Your task to perform on an android device: uninstall "Flipkart Online Shopping App" Image 0: 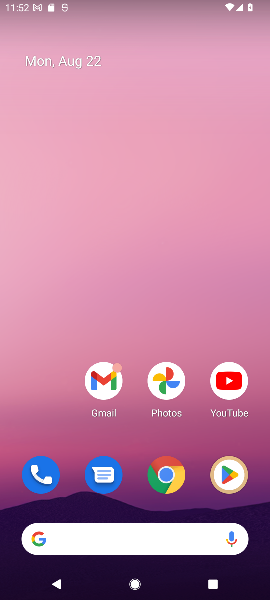
Step 0: press home button
Your task to perform on an android device: uninstall "Flipkart Online Shopping App" Image 1: 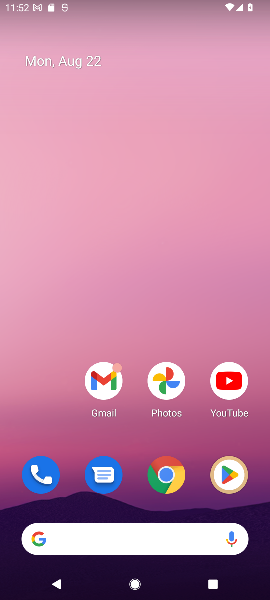
Step 1: click (230, 472)
Your task to perform on an android device: uninstall "Flipkart Online Shopping App" Image 2: 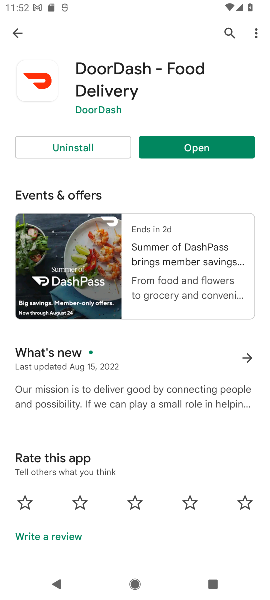
Step 2: click (22, 29)
Your task to perform on an android device: uninstall "Flipkart Online Shopping App" Image 3: 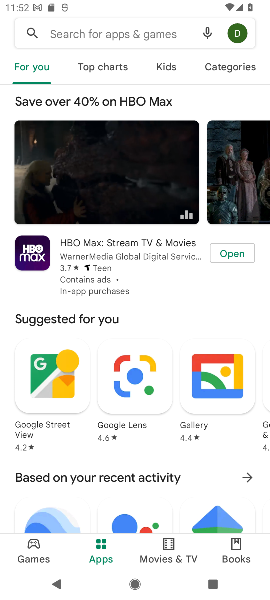
Step 3: click (102, 31)
Your task to perform on an android device: uninstall "Flipkart Online Shopping App" Image 4: 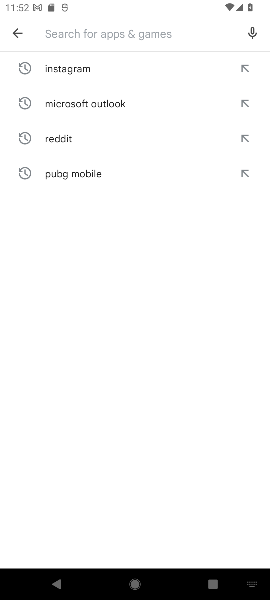
Step 4: type "Flipkart Online Shopping App"
Your task to perform on an android device: uninstall "Flipkart Online Shopping App" Image 5: 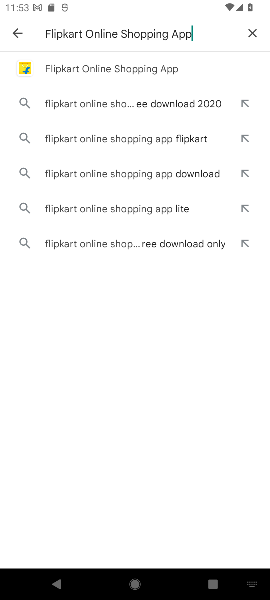
Step 5: click (167, 64)
Your task to perform on an android device: uninstall "Flipkart Online Shopping App" Image 6: 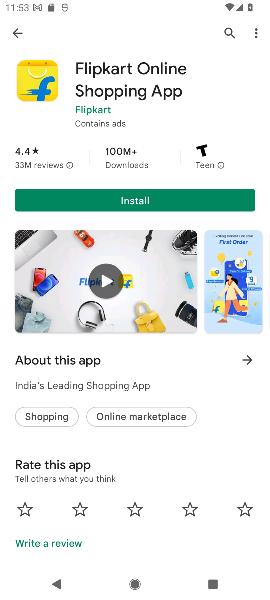
Step 6: task complete